Your task to perform on an android device: Search for pizza restaurants on Maps Image 0: 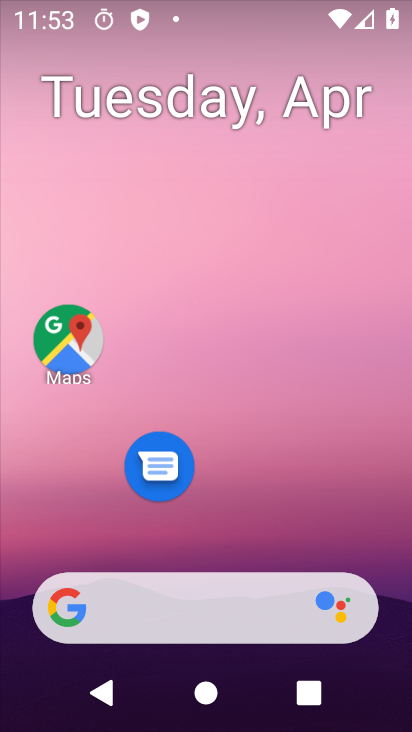
Step 0: click (81, 334)
Your task to perform on an android device: Search for pizza restaurants on Maps Image 1: 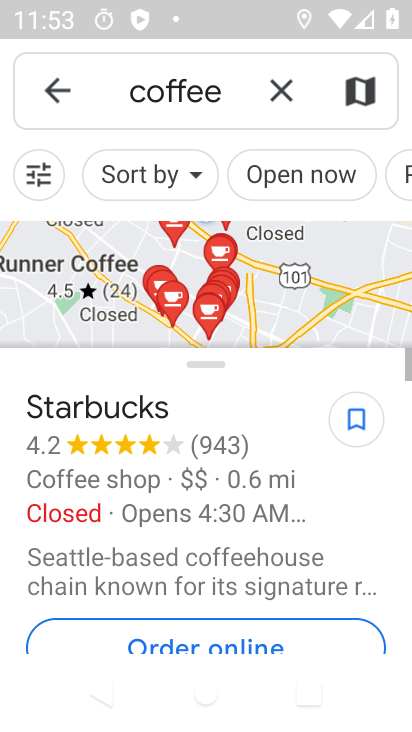
Step 1: click (281, 98)
Your task to perform on an android device: Search for pizza restaurants on Maps Image 2: 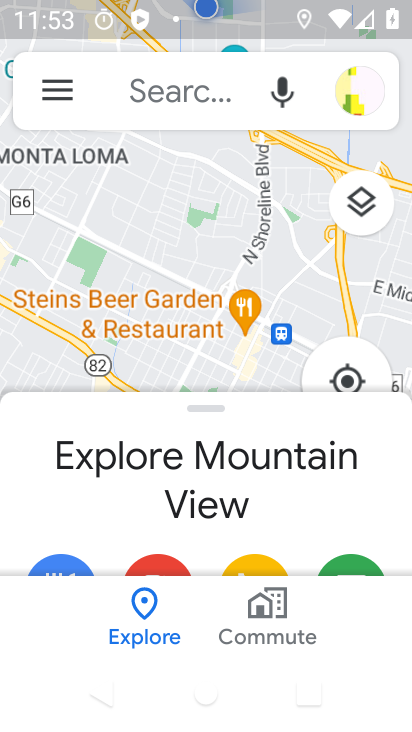
Step 2: click (199, 92)
Your task to perform on an android device: Search for pizza restaurants on Maps Image 3: 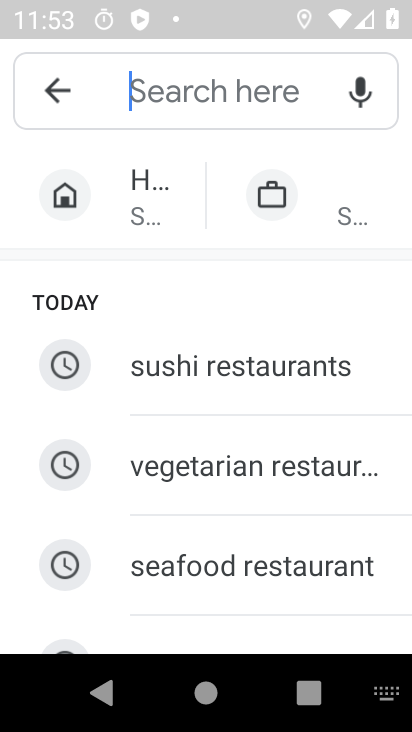
Step 3: type "pizza"
Your task to perform on an android device: Search for pizza restaurants on Maps Image 4: 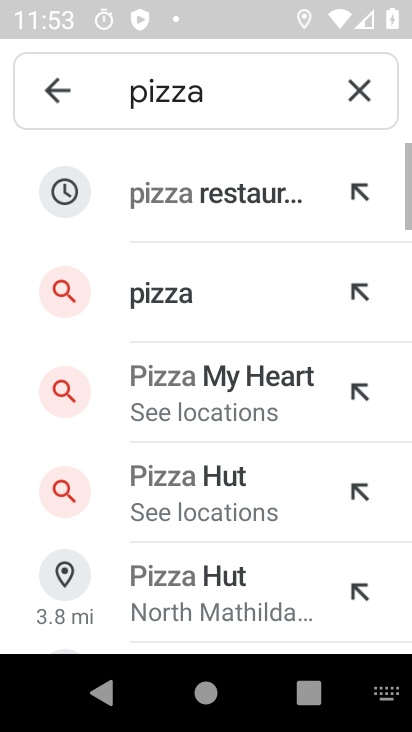
Step 4: click (223, 205)
Your task to perform on an android device: Search for pizza restaurants on Maps Image 5: 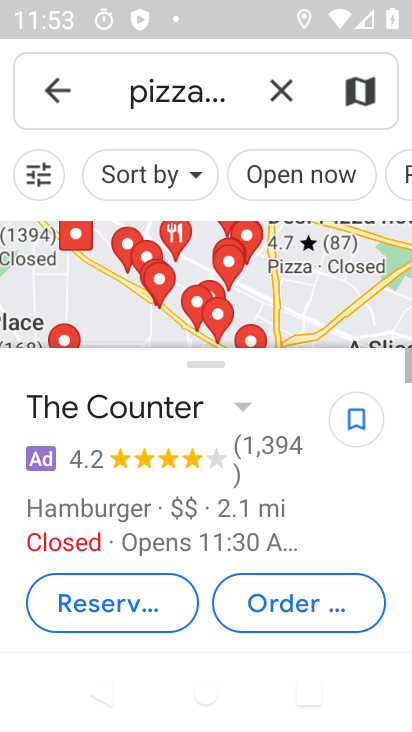
Step 5: task complete